Your task to perform on an android device: turn smart compose on in the gmail app Image 0: 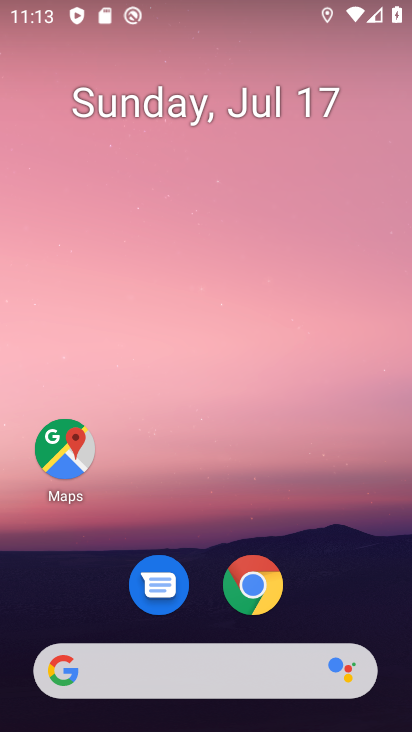
Step 0: drag from (326, 546) to (323, 14)
Your task to perform on an android device: turn smart compose on in the gmail app Image 1: 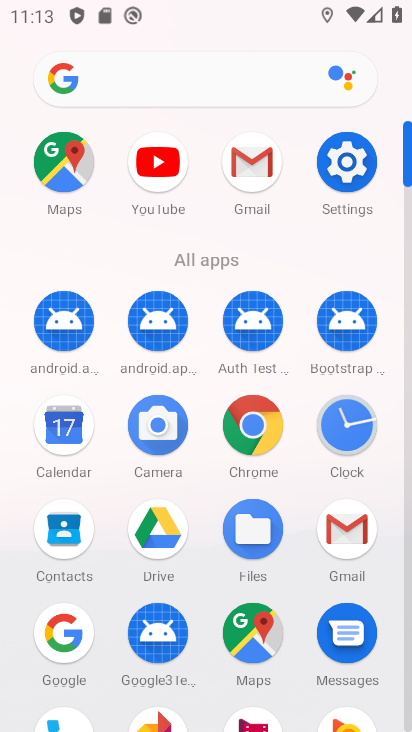
Step 1: click (254, 172)
Your task to perform on an android device: turn smart compose on in the gmail app Image 2: 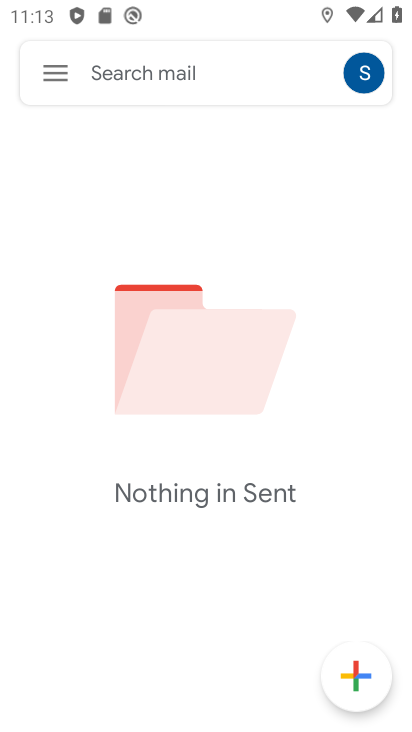
Step 2: click (55, 65)
Your task to perform on an android device: turn smart compose on in the gmail app Image 3: 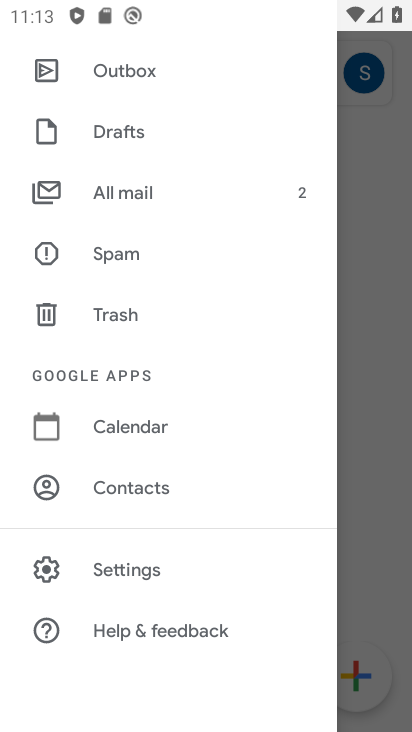
Step 3: click (141, 566)
Your task to perform on an android device: turn smart compose on in the gmail app Image 4: 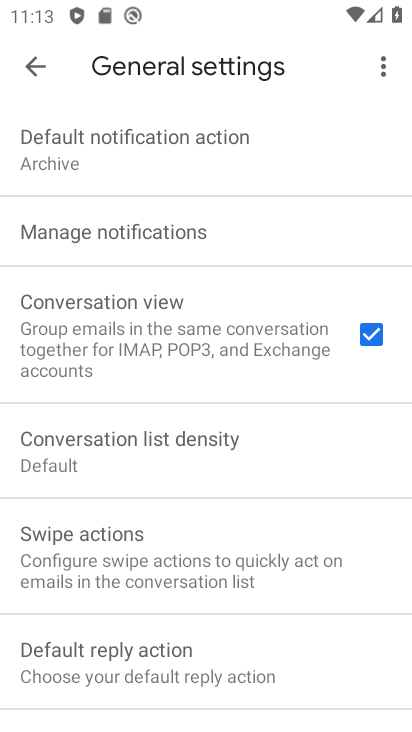
Step 4: drag from (238, 504) to (243, 101)
Your task to perform on an android device: turn smart compose on in the gmail app Image 5: 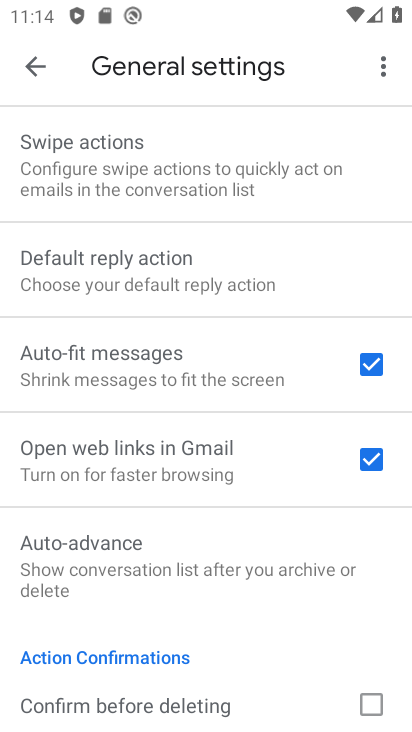
Step 5: click (37, 60)
Your task to perform on an android device: turn smart compose on in the gmail app Image 6: 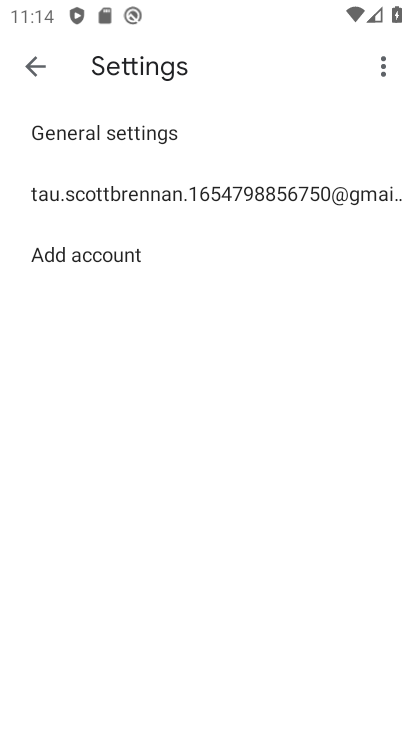
Step 6: click (163, 198)
Your task to perform on an android device: turn smart compose on in the gmail app Image 7: 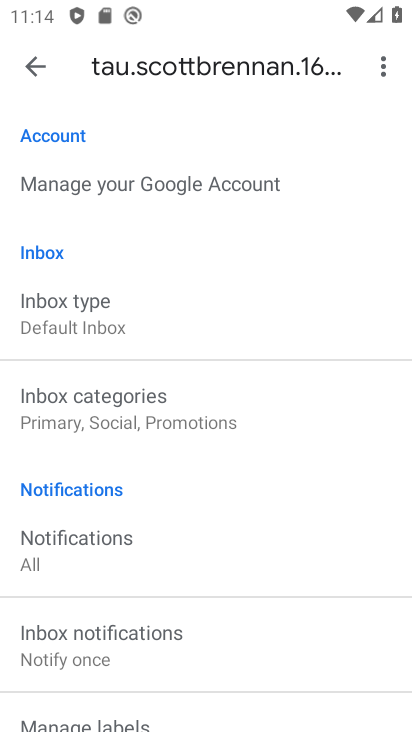
Step 7: task complete